Your task to perform on an android device: toggle priority inbox in the gmail app Image 0: 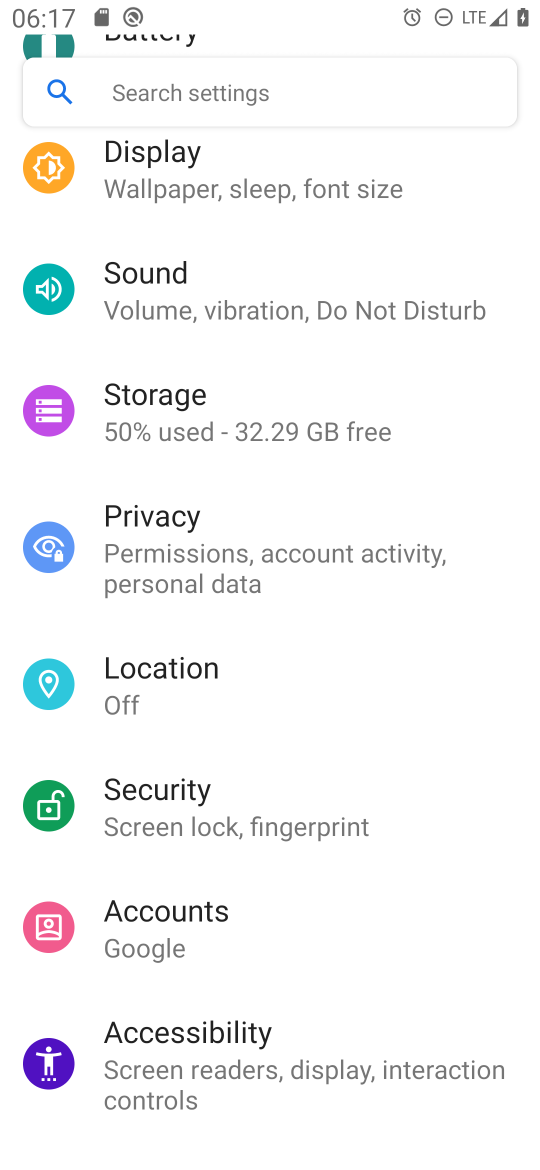
Step 0: press home button
Your task to perform on an android device: toggle priority inbox in the gmail app Image 1: 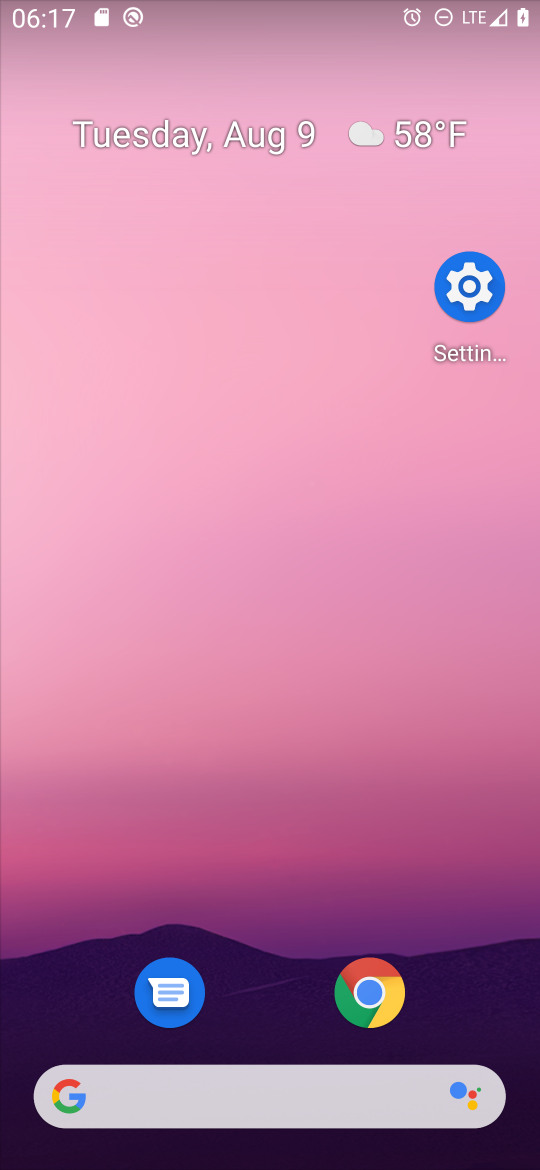
Step 1: drag from (274, 1079) to (257, 781)
Your task to perform on an android device: toggle priority inbox in the gmail app Image 2: 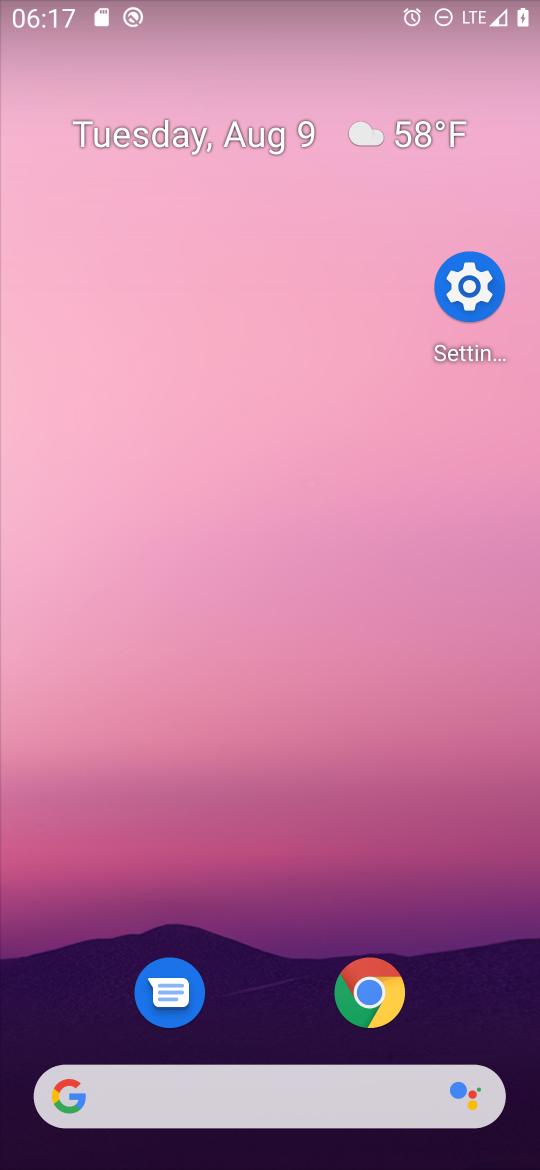
Step 2: drag from (271, 1083) to (91, 35)
Your task to perform on an android device: toggle priority inbox in the gmail app Image 3: 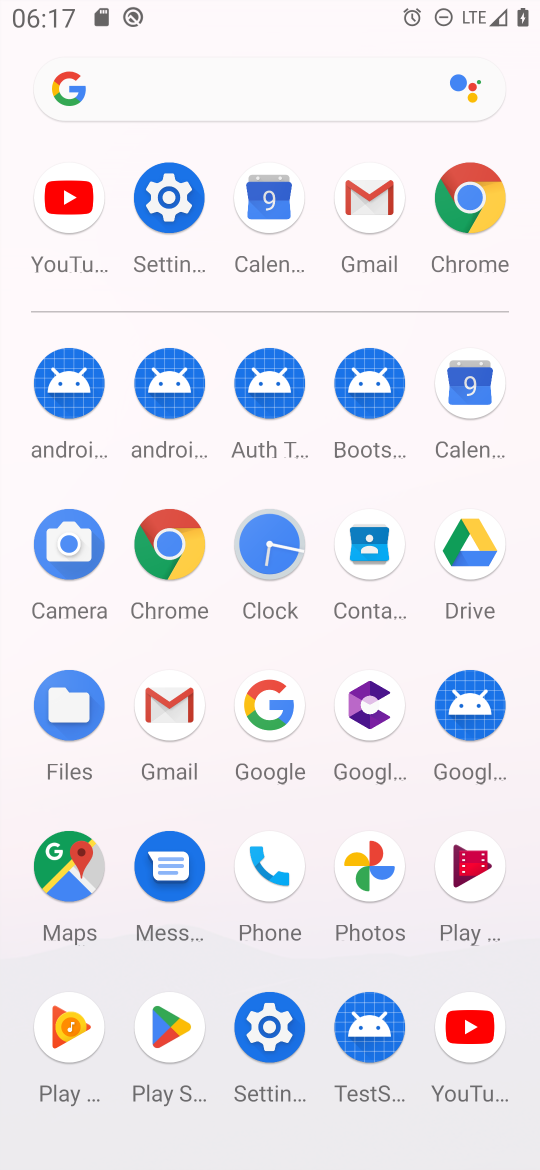
Step 3: click (181, 798)
Your task to perform on an android device: toggle priority inbox in the gmail app Image 4: 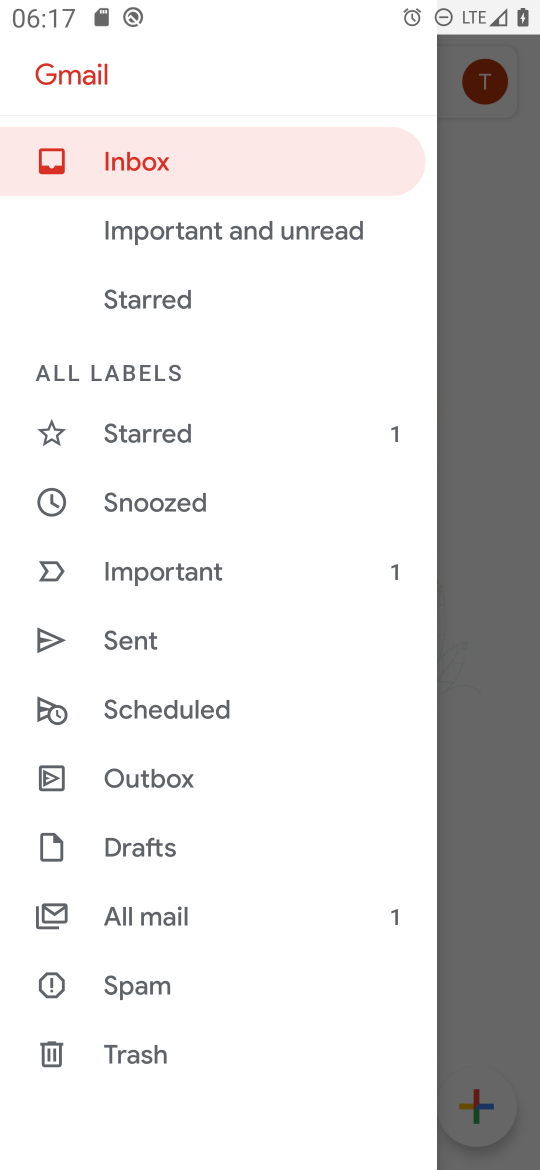
Step 4: drag from (282, 1021) to (416, 372)
Your task to perform on an android device: toggle priority inbox in the gmail app Image 5: 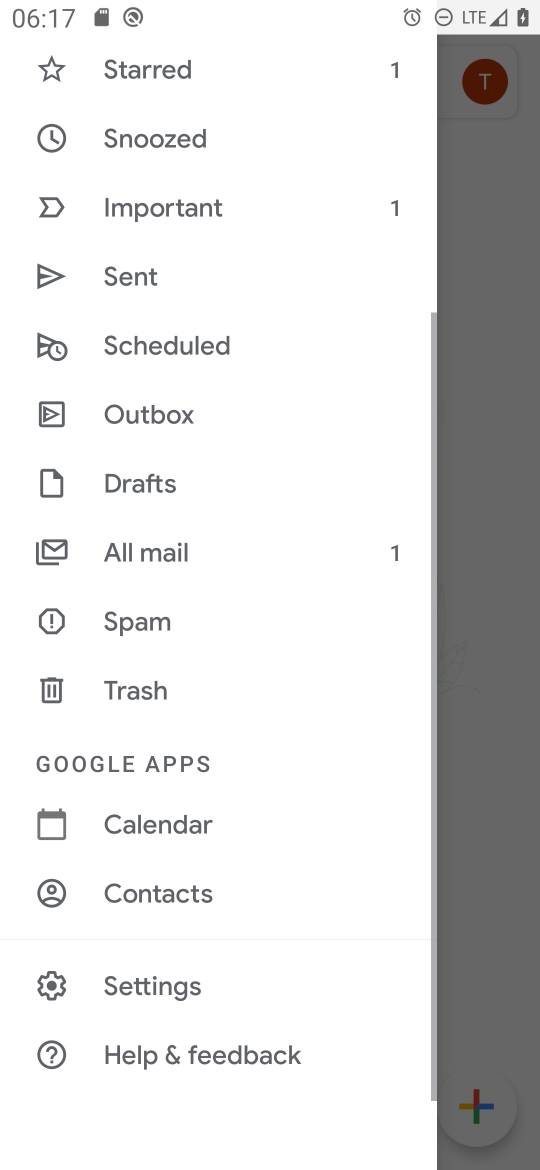
Step 5: click (178, 982)
Your task to perform on an android device: toggle priority inbox in the gmail app Image 6: 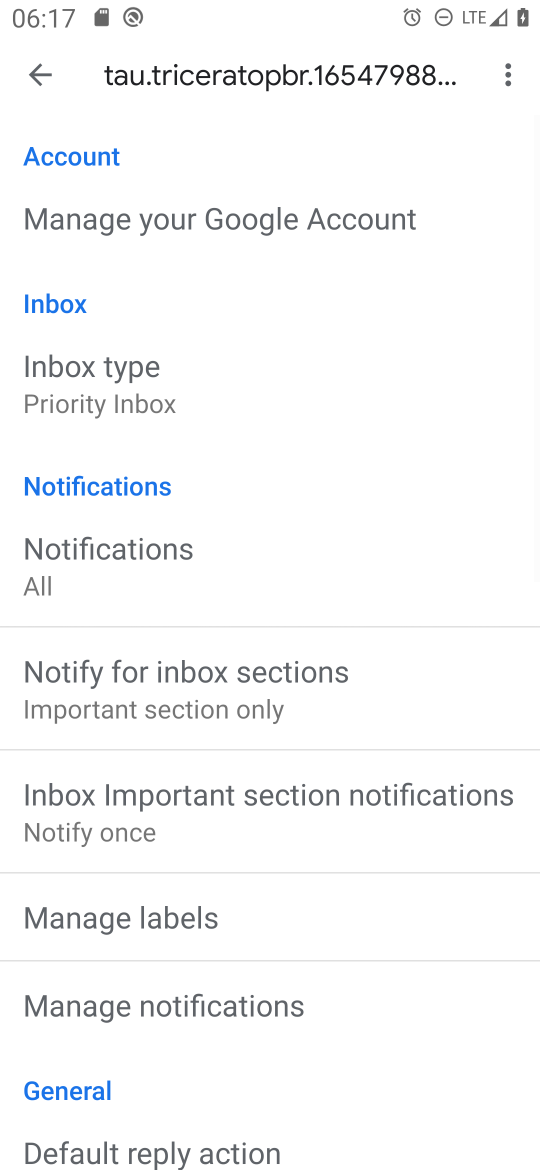
Step 6: click (140, 371)
Your task to perform on an android device: toggle priority inbox in the gmail app Image 7: 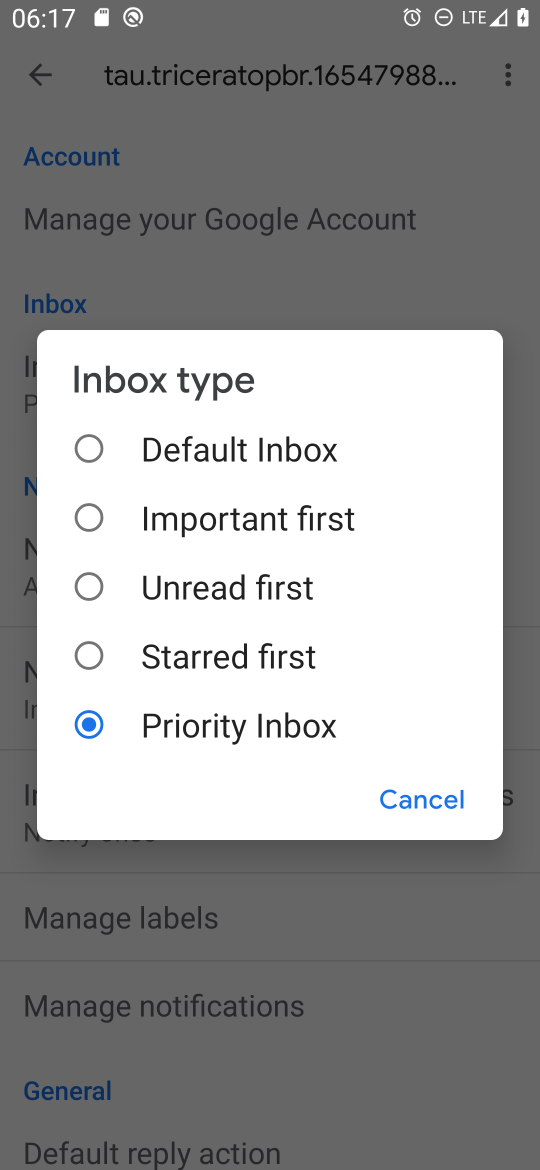
Step 7: click (86, 454)
Your task to perform on an android device: toggle priority inbox in the gmail app Image 8: 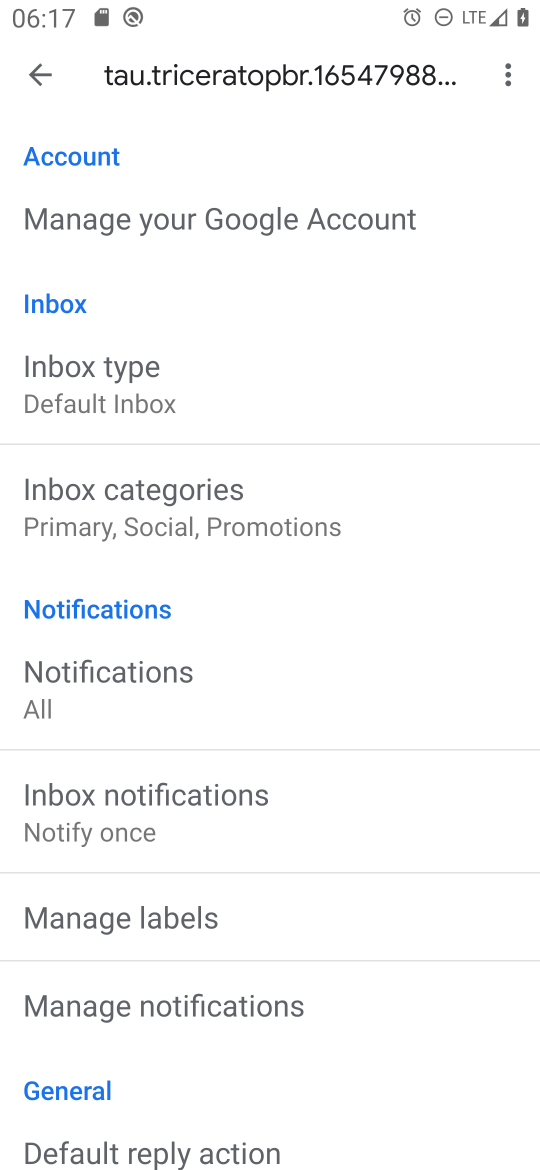
Step 8: task complete